Your task to perform on an android device: open a new tab in the chrome app Image 0: 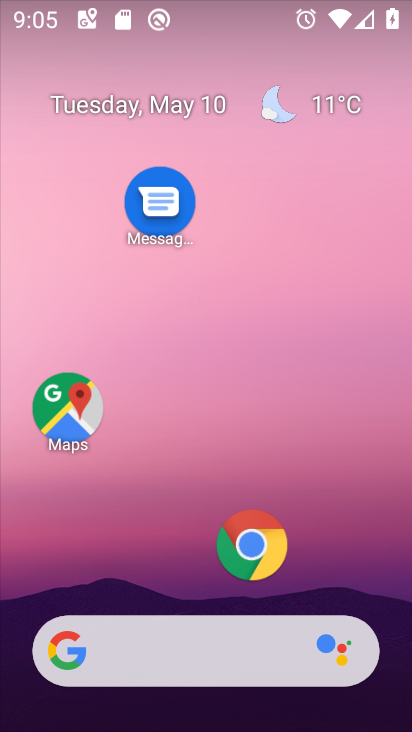
Step 0: press home button
Your task to perform on an android device: open a new tab in the chrome app Image 1: 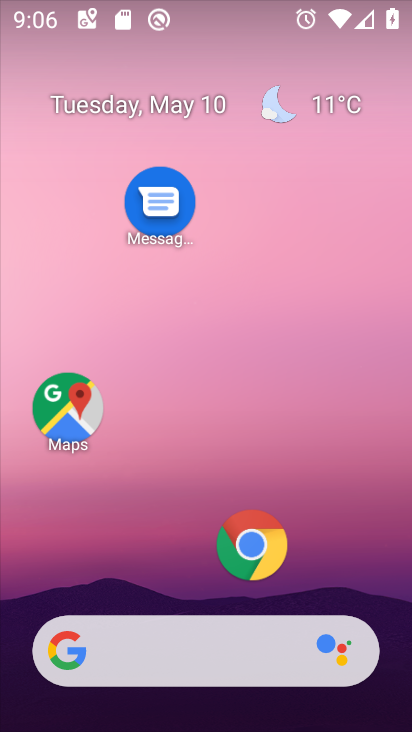
Step 1: click (255, 543)
Your task to perform on an android device: open a new tab in the chrome app Image 2: 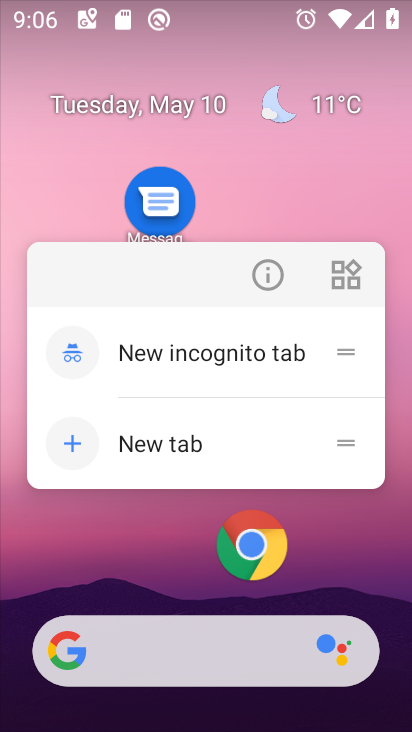
Step 2: click (255, 543)
Your task to perform on an android device: open a new tab in the chrome app Image 3: 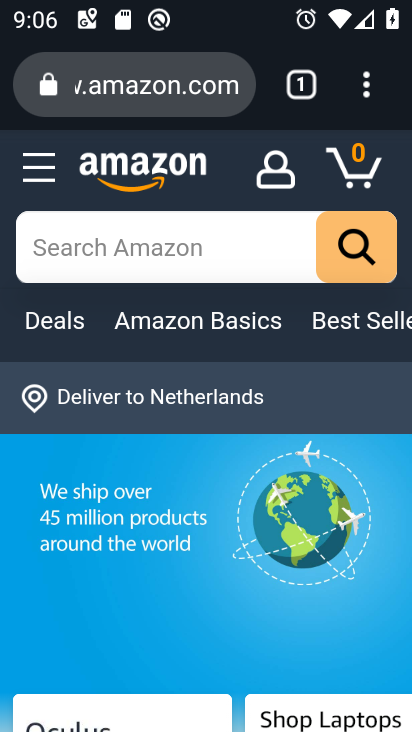
Step 3: click (305, 104)
Your task to perform on an android device: open a new tab in the chrome app Image 4: 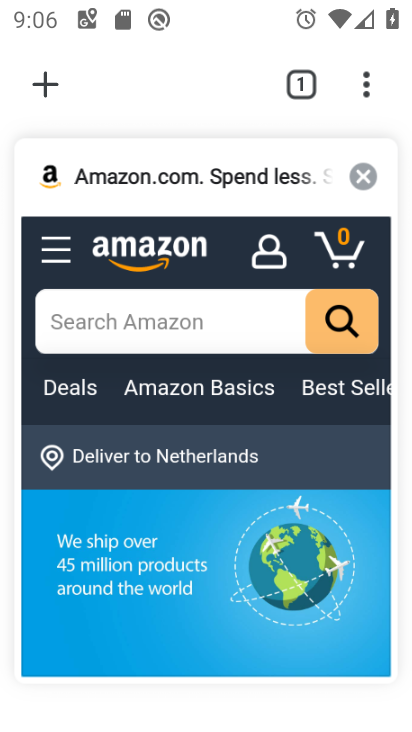
Step 4: click (48, 88)
Your task to perform on an android device: open a new tab in the chrome app Image 5: 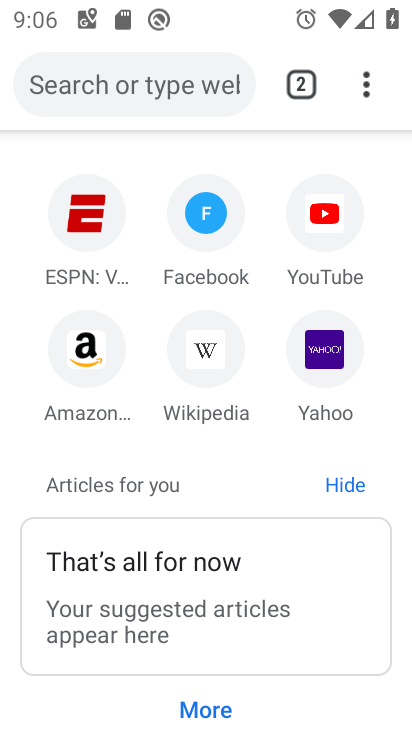
Step 5: task complete